Your task to perform on an android device: manage bookmarks in the chrome app Image 0: 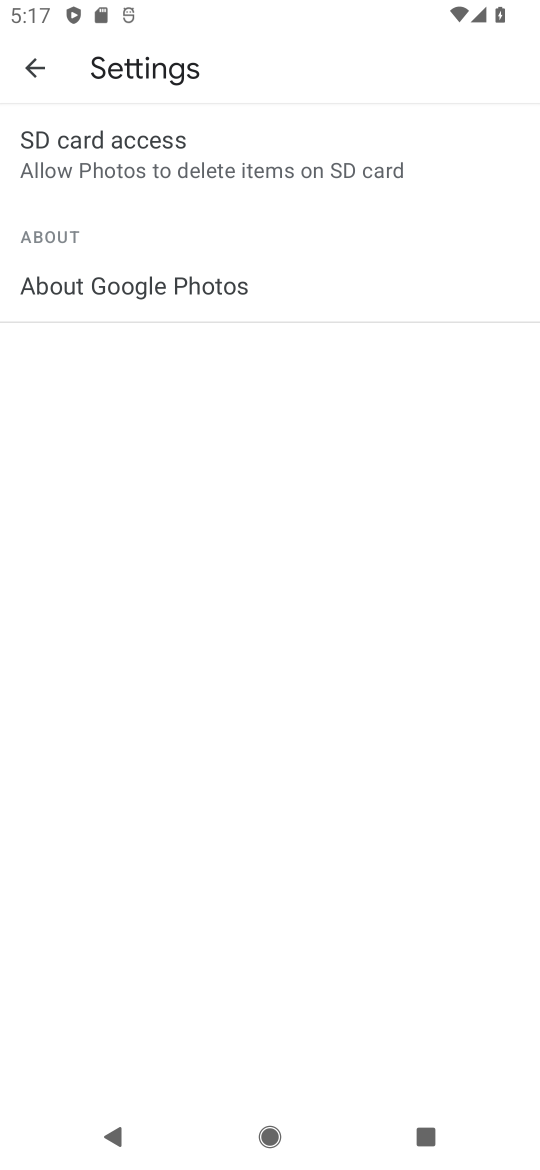
Step 0: press home button
Your task to perform on an android device: manage bookmarks in the chrome app Image 1: 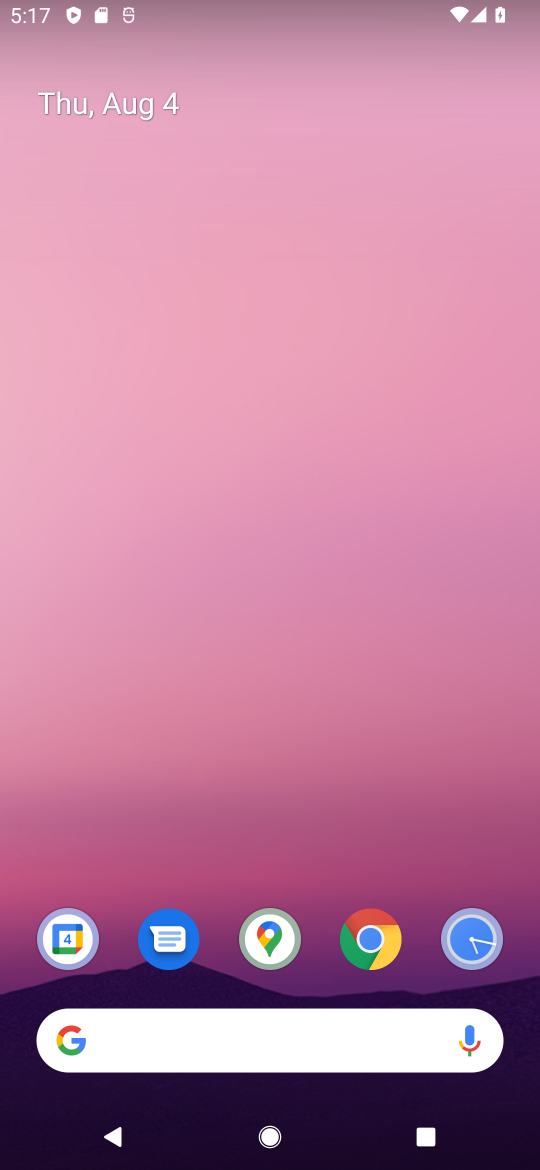
Step 1: click (368, 950)
Your task to perform on an android device: manage bookmarks in the chrome app Image 2: 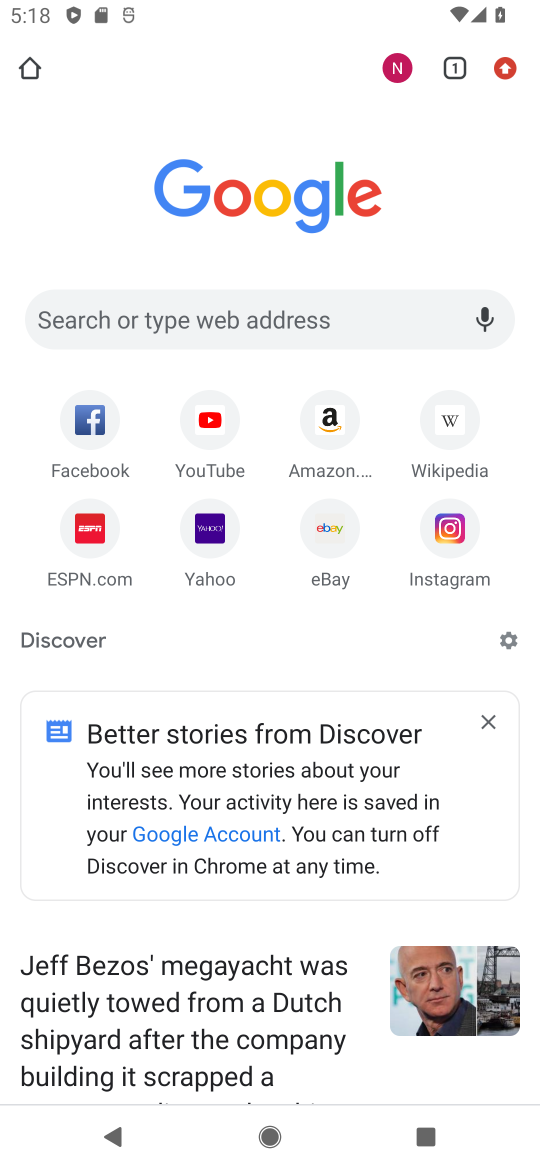
Step 2: click (496, 69)
Your task to perform on an android device: manage bookmarks in the chrome app Image 3: 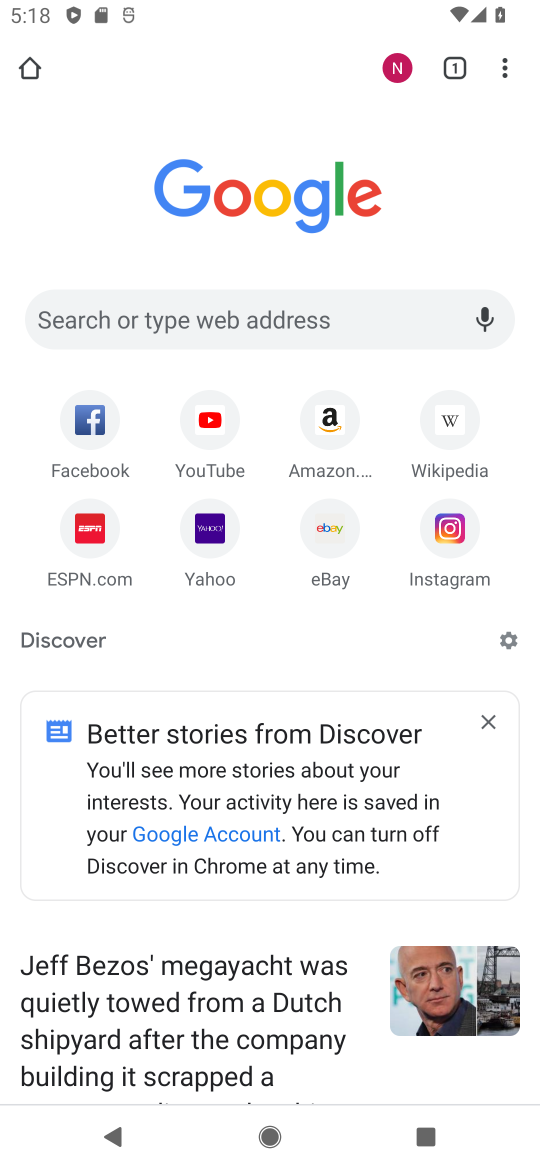
Step 3: click (500, 69)
Your task to perform on an android device: manage bookmarks in the chrome app Image 4: 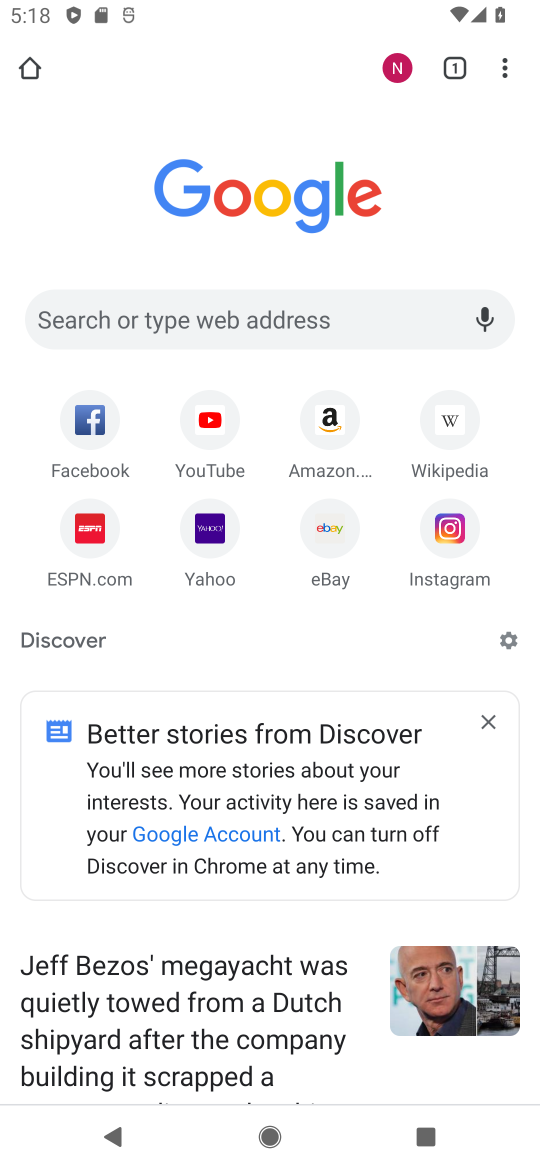
Step 4: click (509, 78)
Your task to perform on an android device: manage bookmarks in the chrome app Image 5: 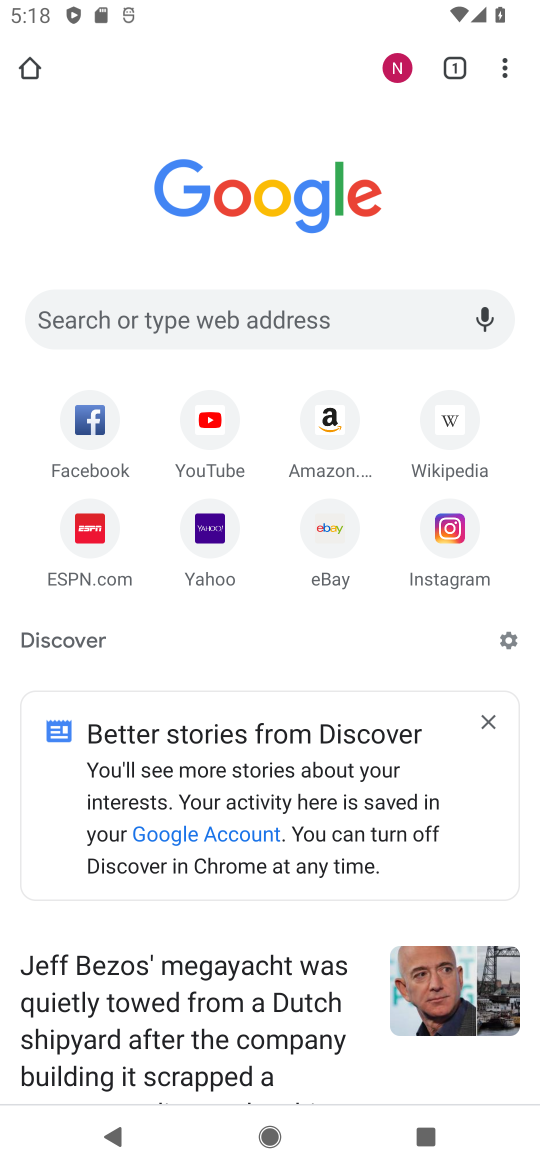
Step 5: click (502, 73)
Your task to perform on an android device: manage bookmarks in the chrome app Image 6: 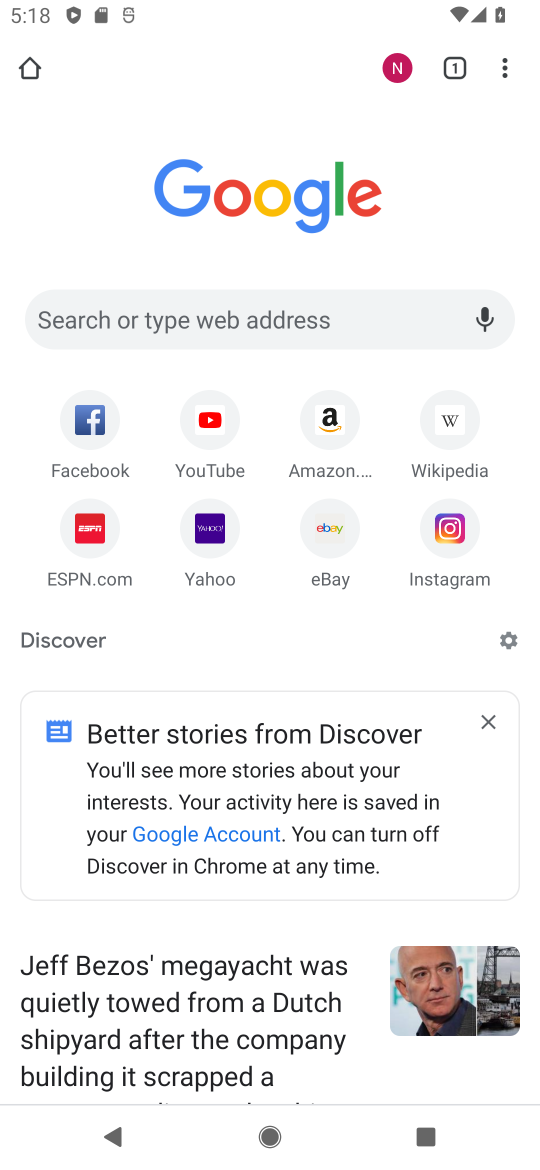
Step 6: click (506, 74)
Your task to perform on an android device: manage bookmarks in the chrome app Image 7: 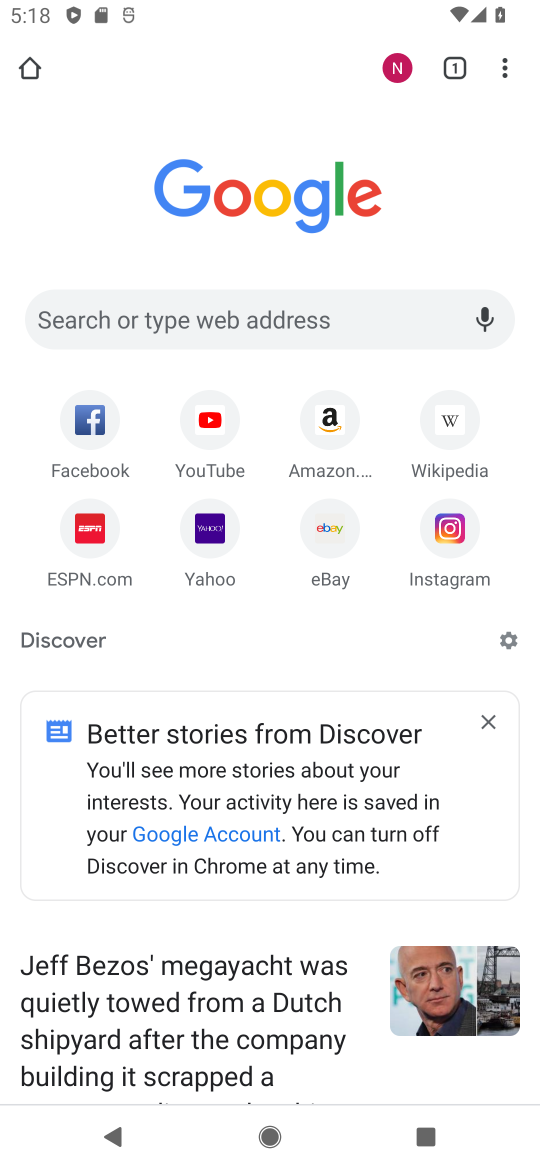
Step 7: click (507, 69)
Your task to perform on an android device: manage bookmarks in the chrome app Image 8: 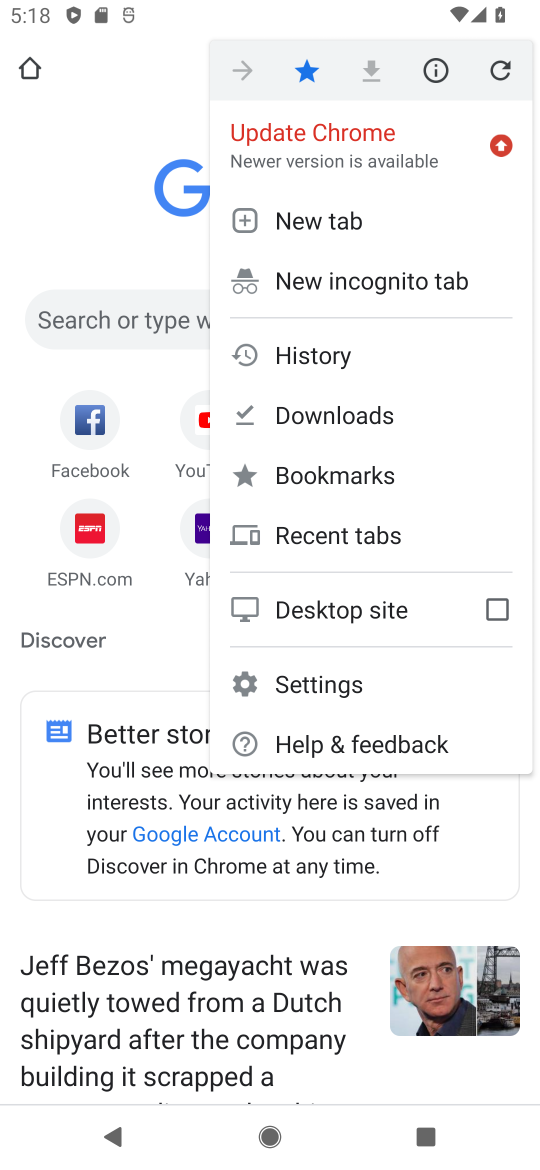
Step 8: click (359, 473)
Your task to perform on an android device: manage bookmarks in the chrome app Image 9: 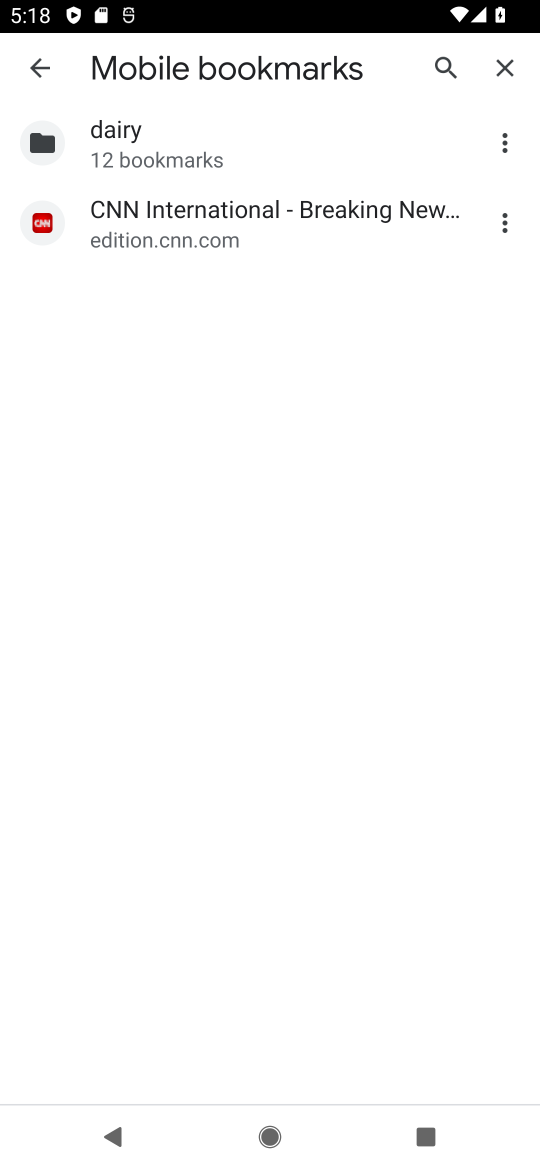
Step 9: task complete